Your task to perform on an android device: Is it going to rain this weekend? Image 0: 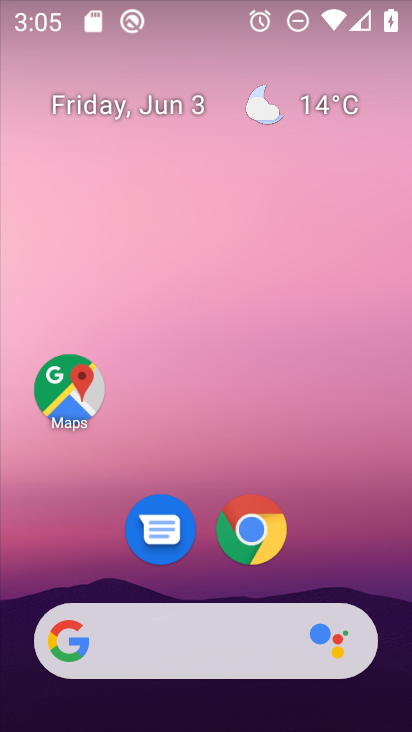
Step 0: click (309, 108)
Your task to perform on an android device: Is it going to rain this weekend? Image 1: 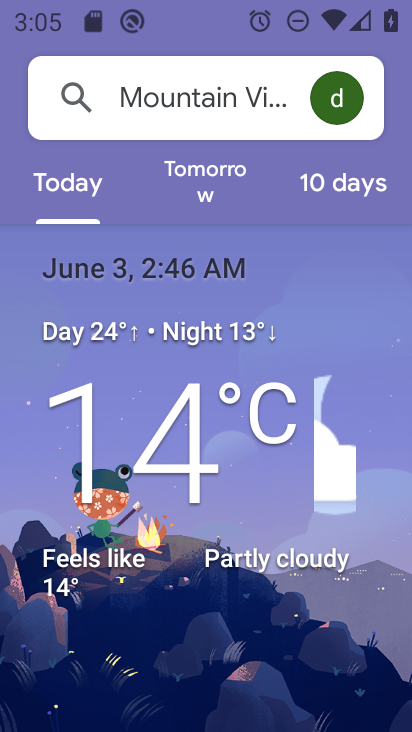
Step 1: click (332, 190)
Your task to perform on an android device: Is it going to rain this weekend? Image 2: 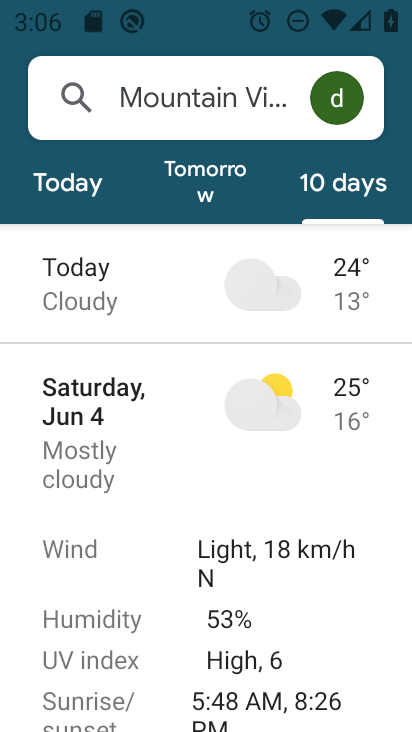
Step 2: task complete